Your task to perform on an android device: open a new tab in the chrome app Image 0: 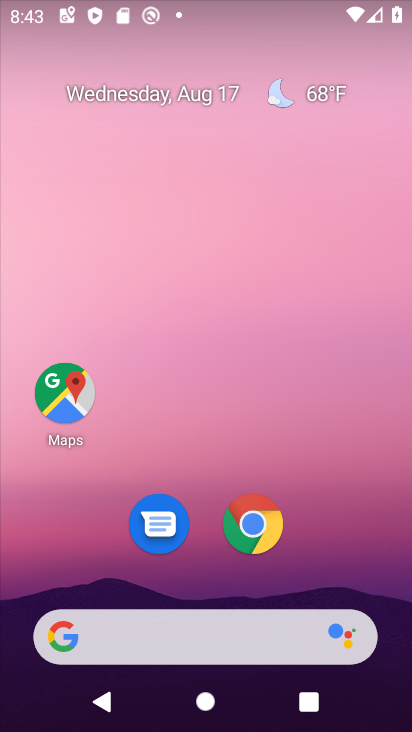
Step 0: click (258, 518)
Your task to perform on an android device: open a new tab in the chrome app Image 1: 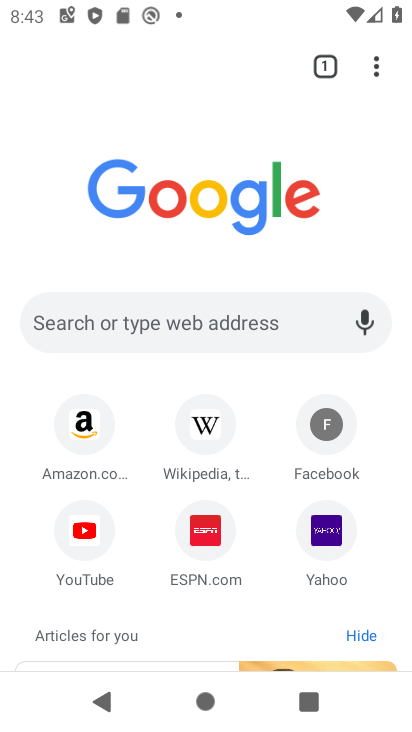
Step 1: click (378, 65)
Your task to perform on an android device: open a new tab in the chrome app Image 2: 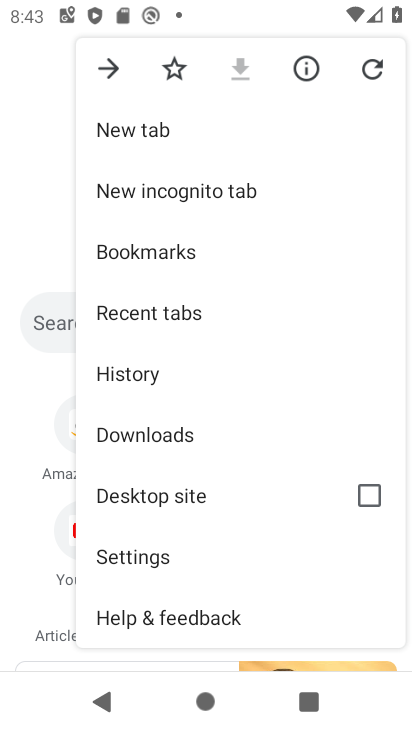
Step 2: click (238, 126)
Your task to perform on an android device: open a new tab in the chrome app Image 3: 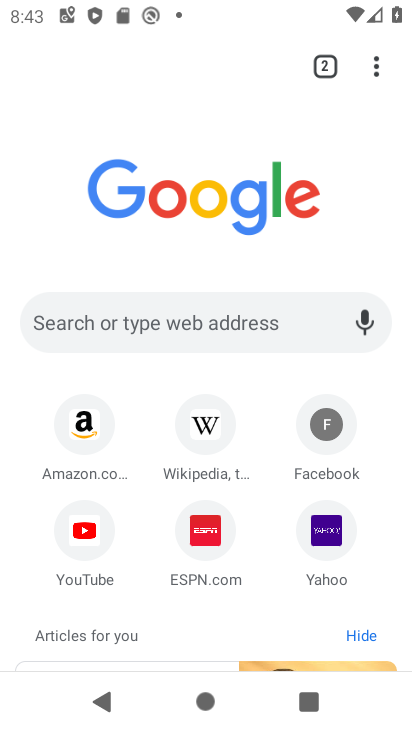
Step 3: task complete